Your task to perform on an android device: Open Maps and search for coffee Image 0: 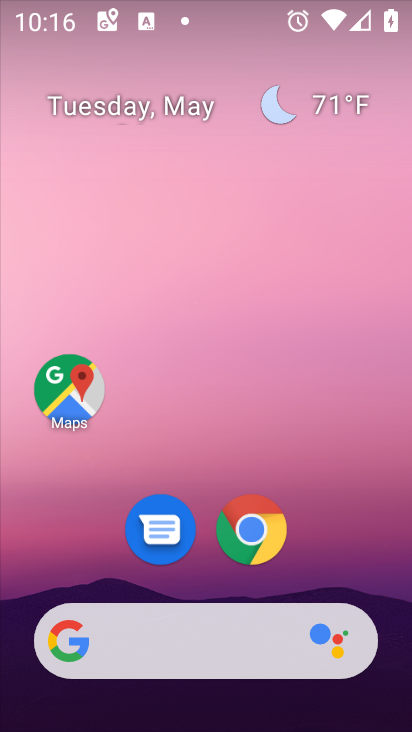
Step 0: drag from (326, 585) to (330, 329)
Your task to perform on an android device: Open Maps and search for coffee Image 1: 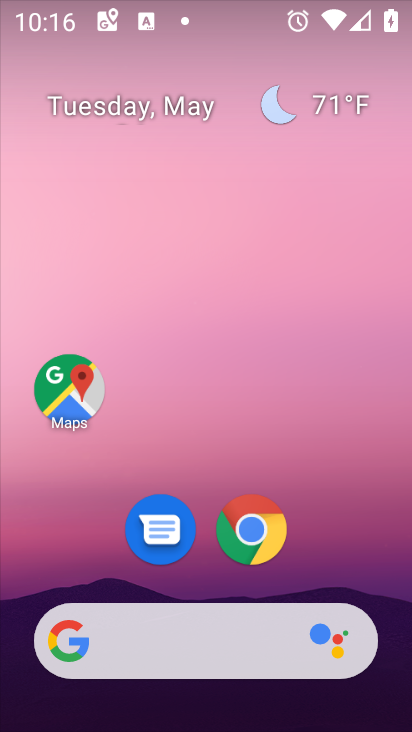
Step 1: drag from (240, 655) to (224, 359)
Your task to perform on an android device: Open Maps and search for coffee Image 2: 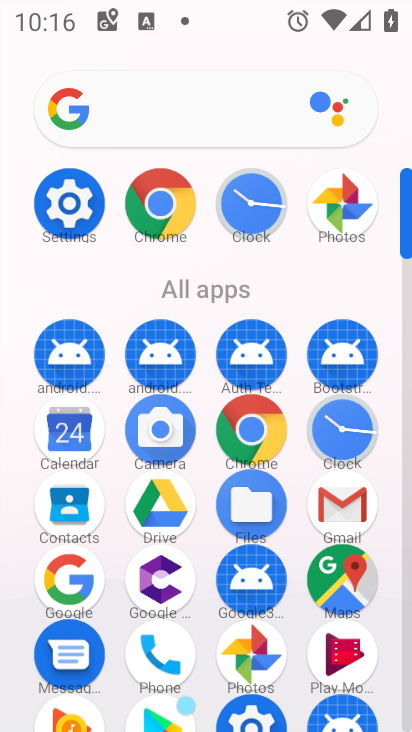
Step 2: click (349, 588)
Your task to perform on an android device: Open Maps and search for coffee Image 3: 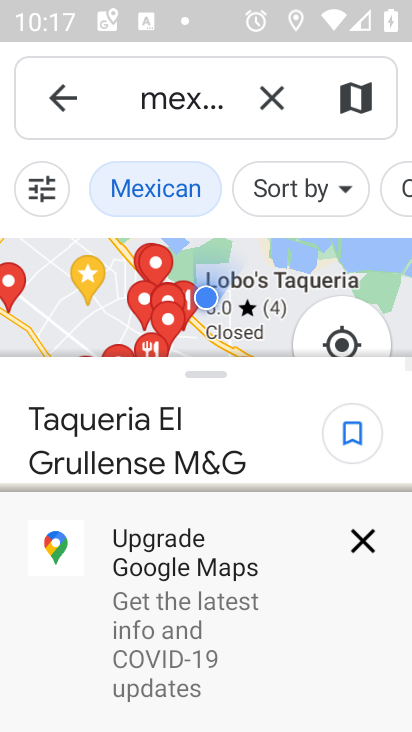
Step 3: click (269, 106)
Your task to perform on an android device: Open Maps and search for coffee Image 4: 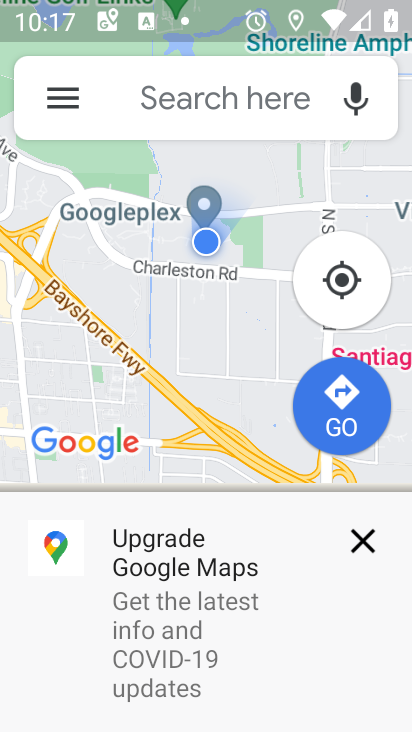
Step 4: click (209, 114)
Your task to perform on an android device: Open Maps and search for coffee Image 5: 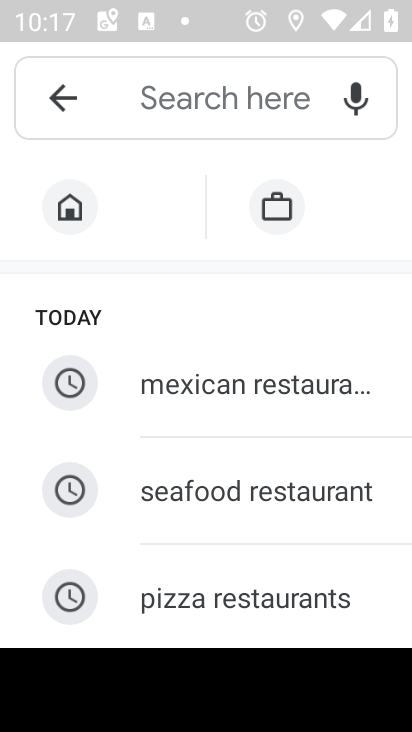
Step 5: type "coffee"
Your task to perform on an android device: Open Maps and search for coffee Image 6: 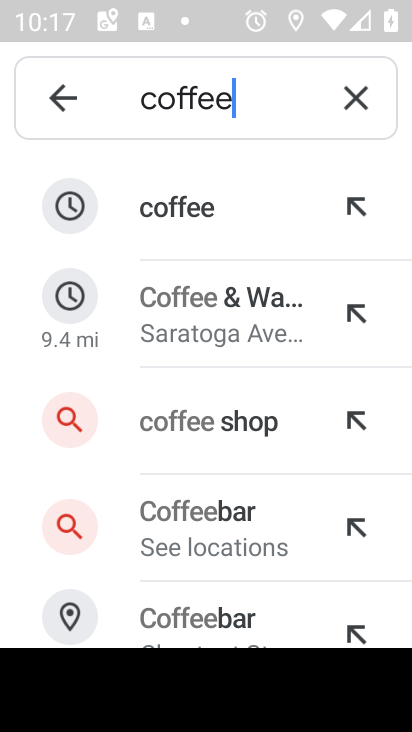
Step 6: click (244, 228)
Your task to perform on an android device: Open Maps and search for coffee Image 7: 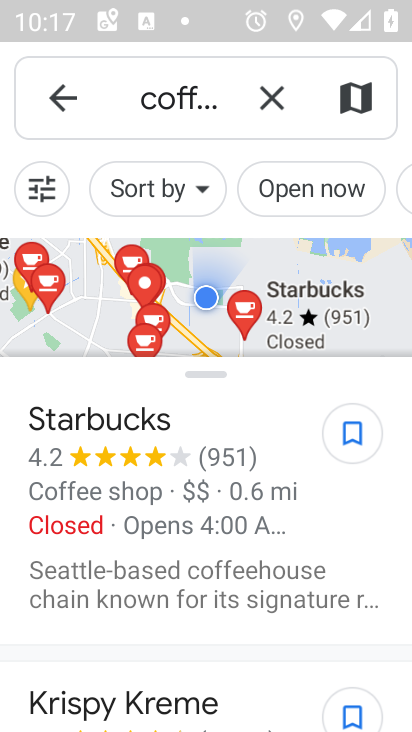
Step 7: task complete